Your task to perform on an android device: open app "Calculator" (install if not already installed) Image 0: 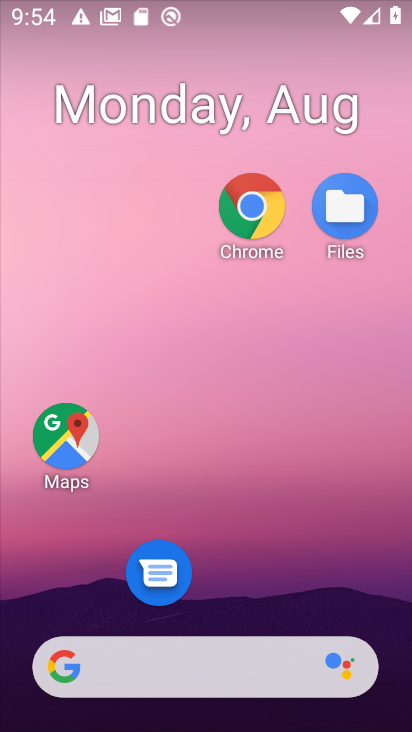
Step 0: drag from (277, 651) to (245, 95)
Your task to perform on an android device: open app "Calculator" (install if not already installed) Image 1: 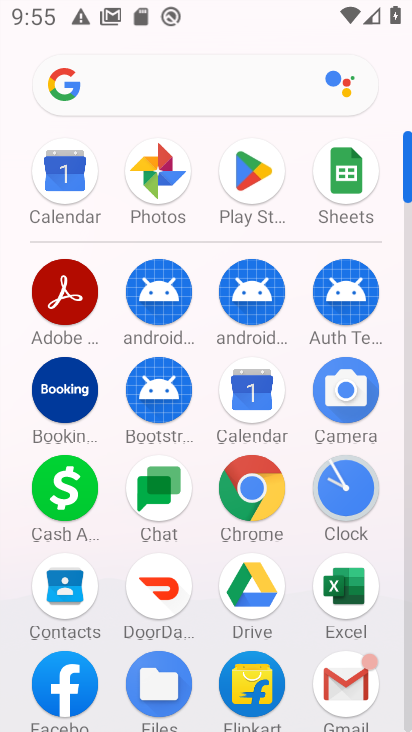
Step 1: click (253, 182)
Your task to perform on an android device: open app "Calculator" (install if not already installed) Image 2: 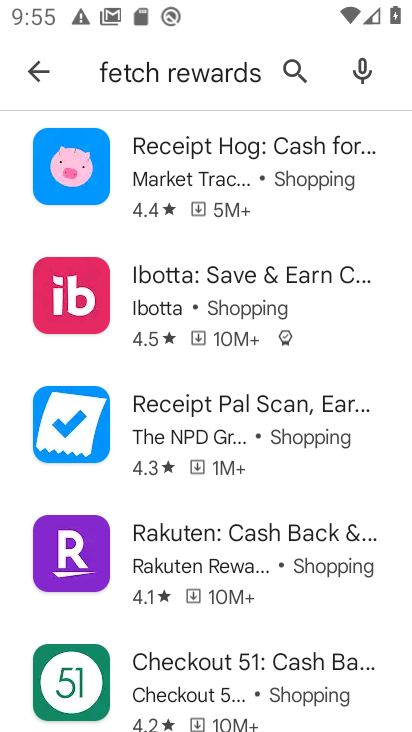
Step 2: click (286, 70)
Your task to perform on an android device: open app "Calculator" (install if not already installed) Image 3: 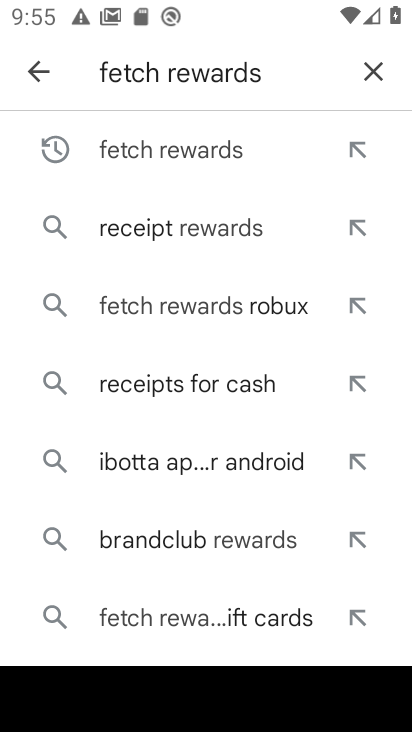
Step 3: click (365, 65)
Your task to perform on an android device: open app "Calculator" (install if not already installed) Image 4: 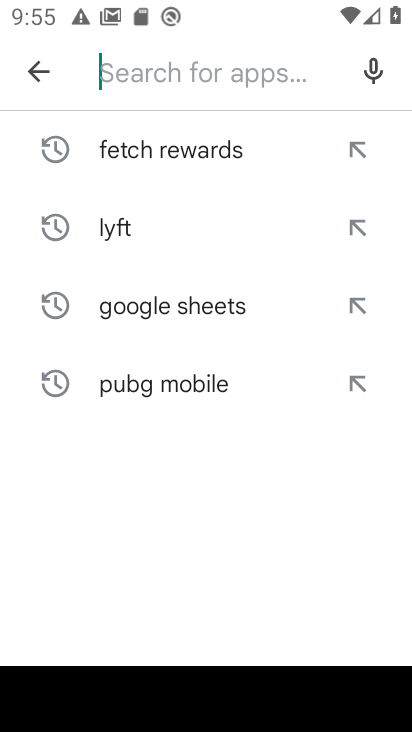
Step 4: type "calculator"
Your task to perform on an android device: open app "Calculator" (install if not already installed) Image 5: 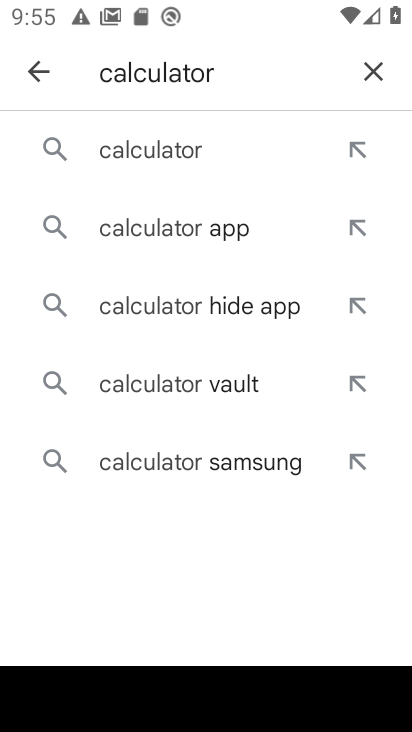
Step 5: click (185, 154)
Your task to perform on an android device: open app "Calculator" (install if not already installed) Image 6: 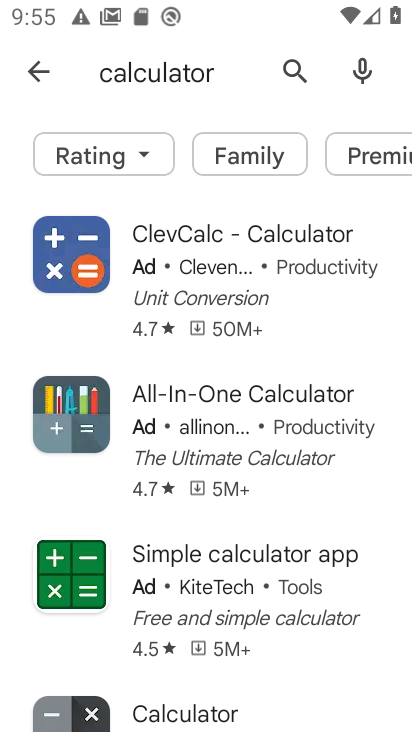
Step 6: drag from (282, 677) to (293, 501)
Your task to perform on an android device: open app "Calculator" (install if not already installed) Image 7: 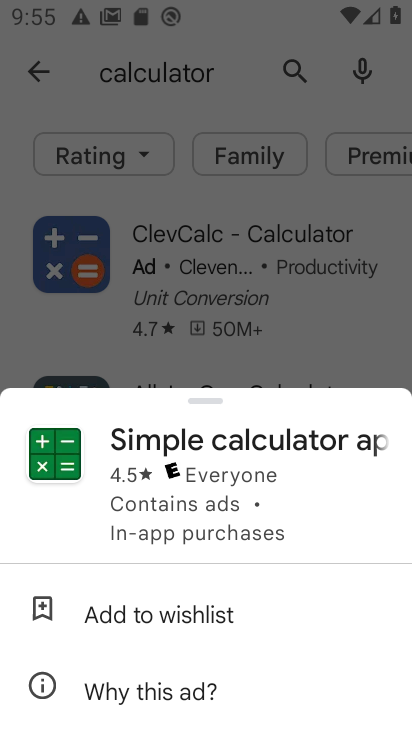
Step 7: click (389, 282)
Your task to perform on an android device: open app "Calculator" (install if not already installed) Image 8: 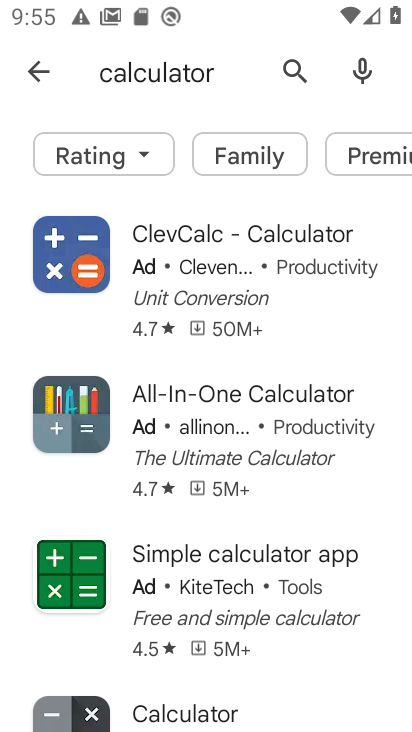
Step 8: drag from (391, 639) to (402, 471)
Your task to perform on an android device: open app "Calculator" (install if not already installed) Image 9: 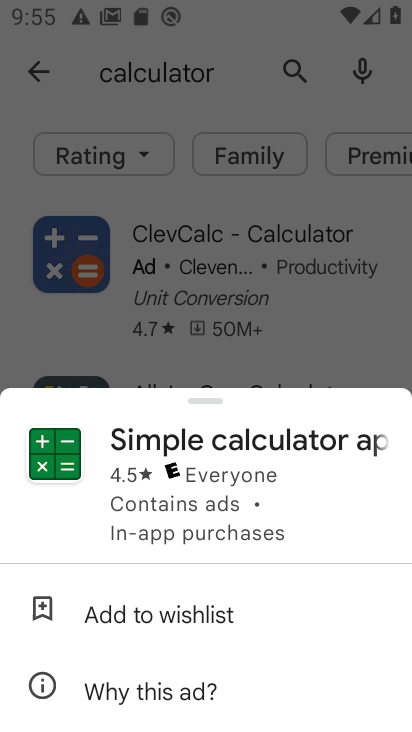
Step 9: click (363, 320)
Your task to perform on an android device: open app "Calculator" (install if not already installed) Image 10: 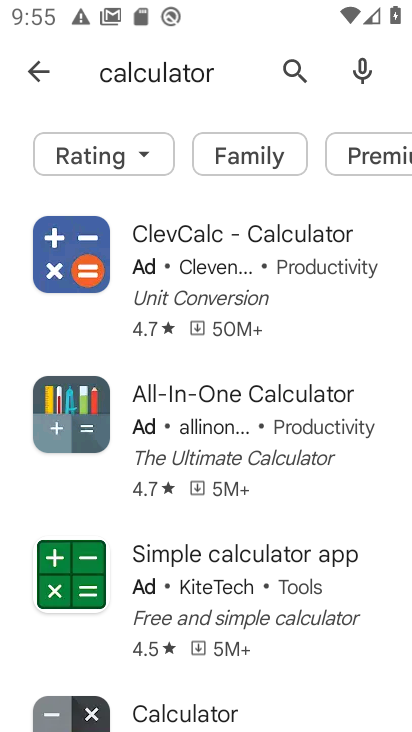
Step 10: click (199, 707)
Your task to perform on an android device: open app "Calculator" (install if not already installed) Image 11: 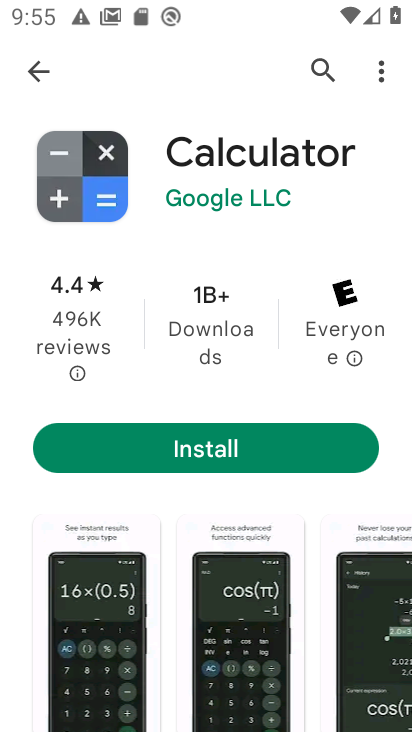
Step 11: click (184, 455)
Your task to perform on an android device: open app "Calculator" (install if not already installed) Image 12: 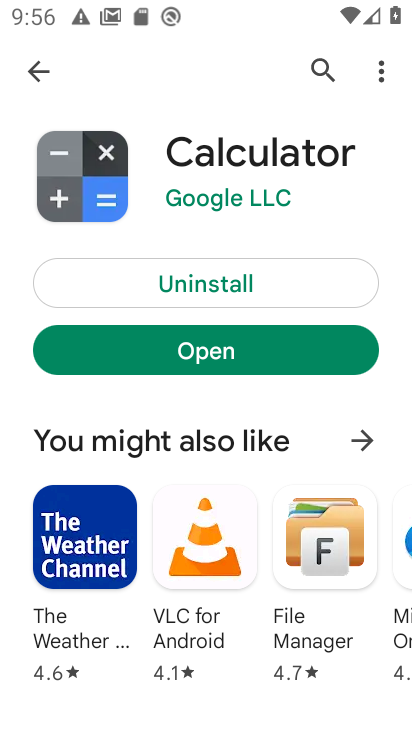
Step 12: task complete